Your task to perform on an android device: uninstall "Venmo" Image 0: 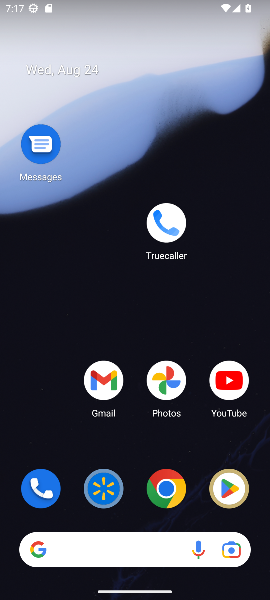
Step 0: click (223, 498)
Your task to perform on an android device: uninstall "Venmo" Image 1: 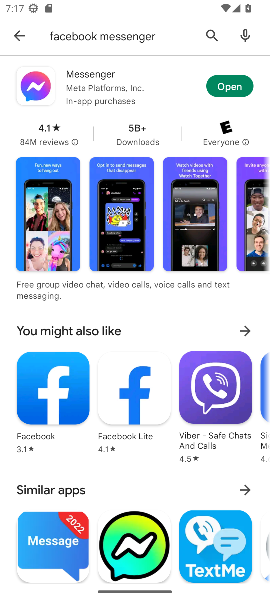
Step 1: click (207, 30)
Your task to perform on an android device: uninstall "Venmo" Image 2: 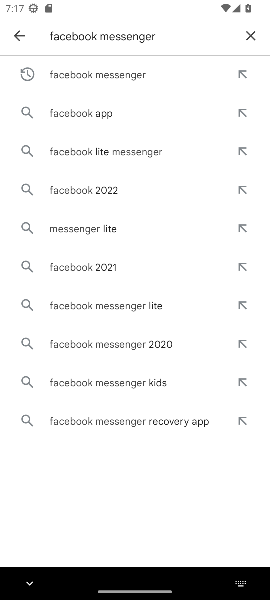
Step 2: click (246, 35)
Your task to perform on an android device: uninstall "Venmo" Image 3: 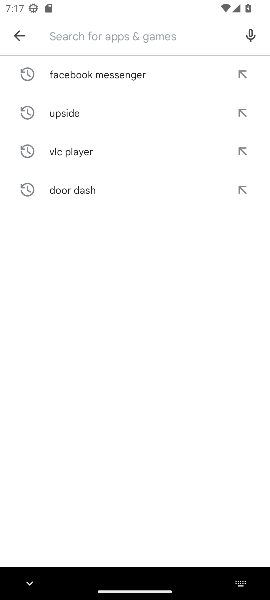
Step 3: type "venmo"
Your task to perform on an android device: uninstall "Venmo" Image 4: 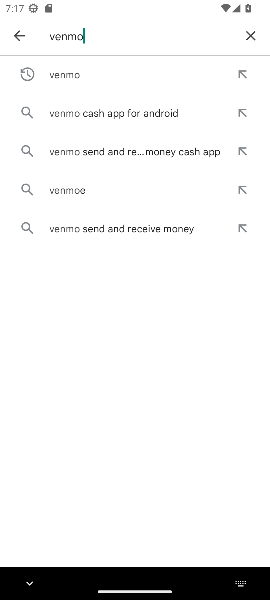
Step 4: click (117, 83)
Your task to perform on an android device: uninstall "Venmo" Image 5: 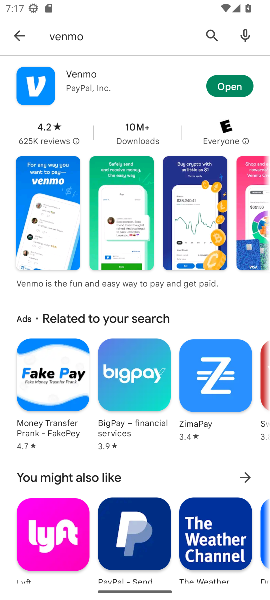
Step 5: click (229, 81)
Your task to perform on an android device: uninstall "Venmo" Image 6: 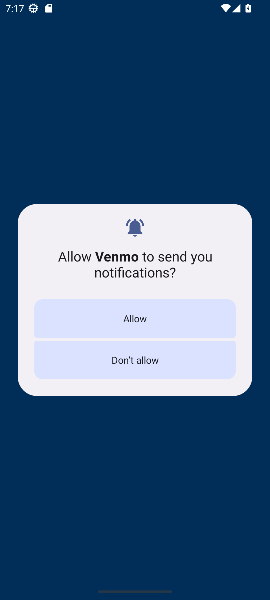
Step 6: task complete